Your task to perform on an android device: Toggle the flashlight Image 0: 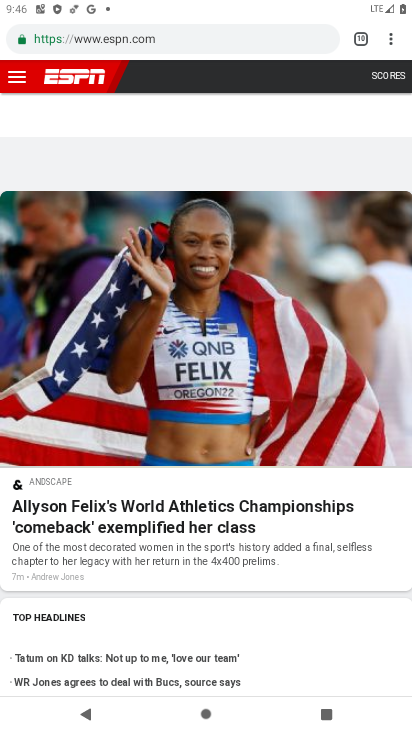
Step 0: press home button
Your task to perform on an android device: Toggle the flashlight Image 1: 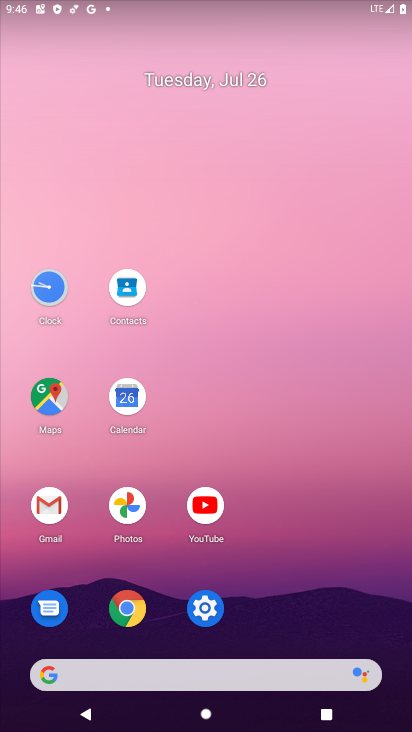
Step 1: click (202, 609)
Your task to perform on an android device: Toggle the flashlight Image 2: 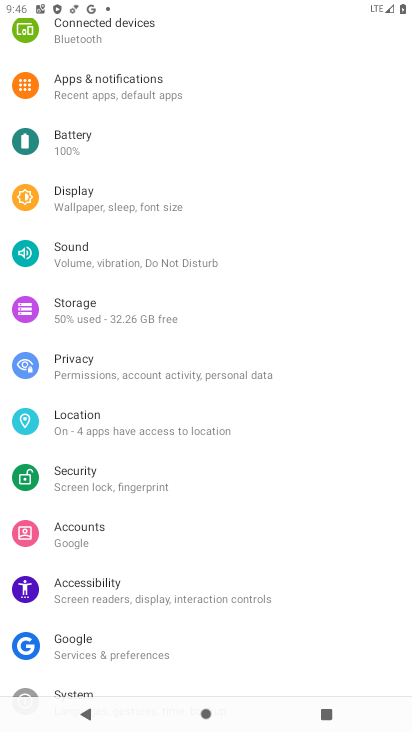
Step 2: click (66, 321)
Your task to perform on an android device: Toggle the flashlight Image 3: 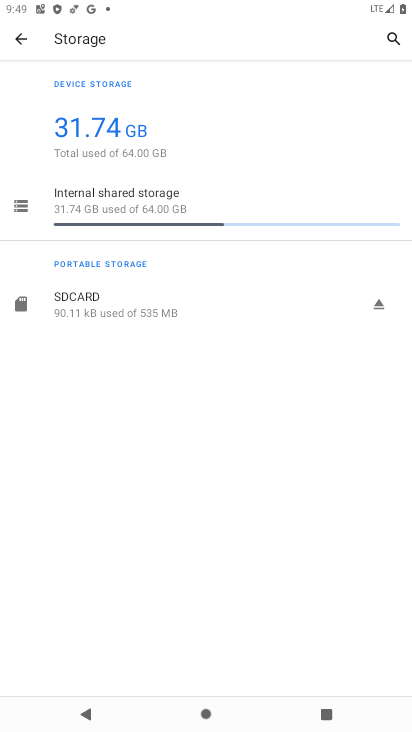
Step 3: click (17, 32)
Your task to perform on an android device: Toggle the flashlight Image 4: 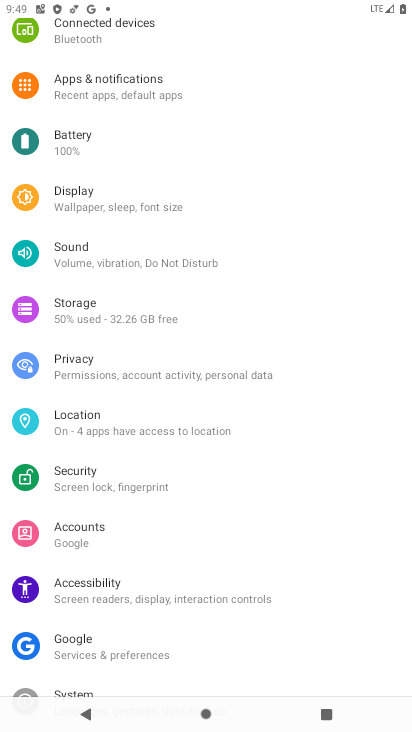
Step 4: task complete